Your task to perform on an android device: turn off airplane mode Image 0: 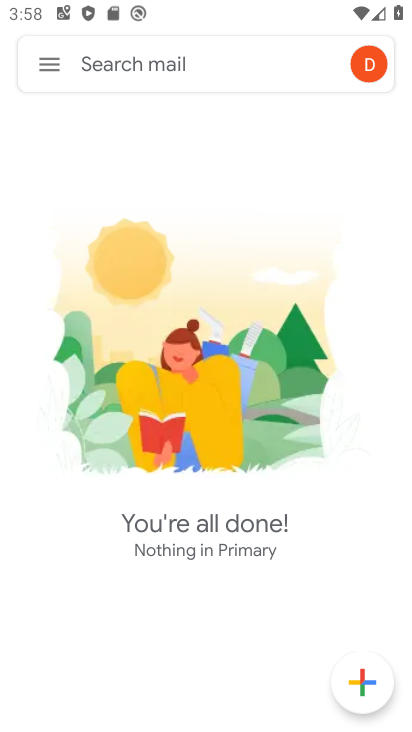
Step 0: press home button
Your task to perform on an android device: turn off airplane mode Image 1: 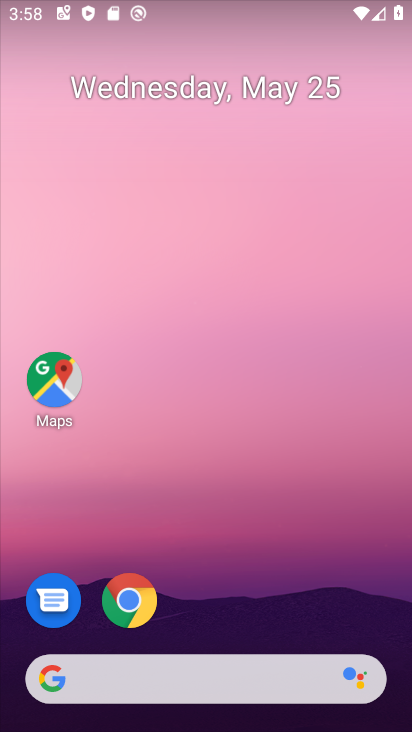
Step 1: task complete